Your task to perform on an android device: install app "Speedtest by Ookla" Image 0: 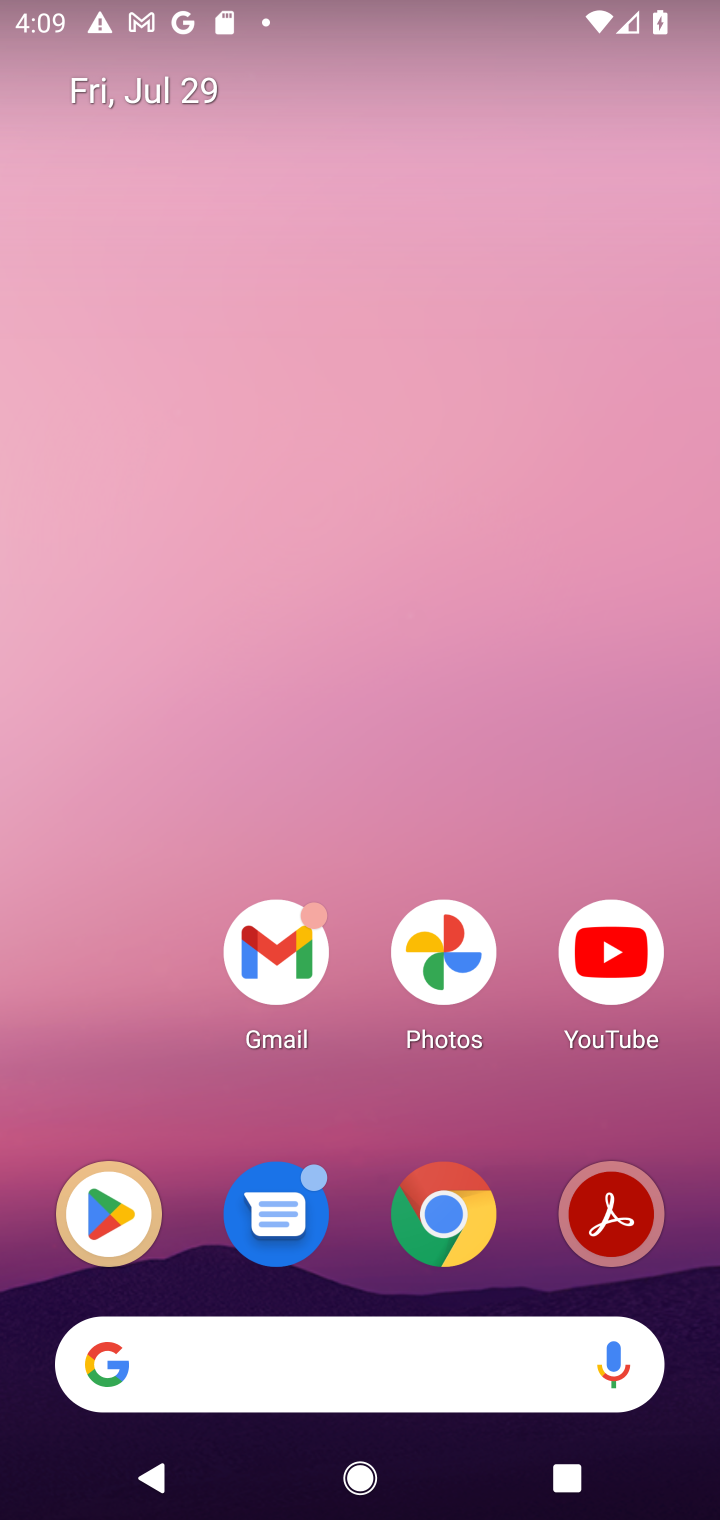
Step 0: click (113, 1254)
Your task to perform on an android device: install app "Speedtest by Ookla" Image 1: 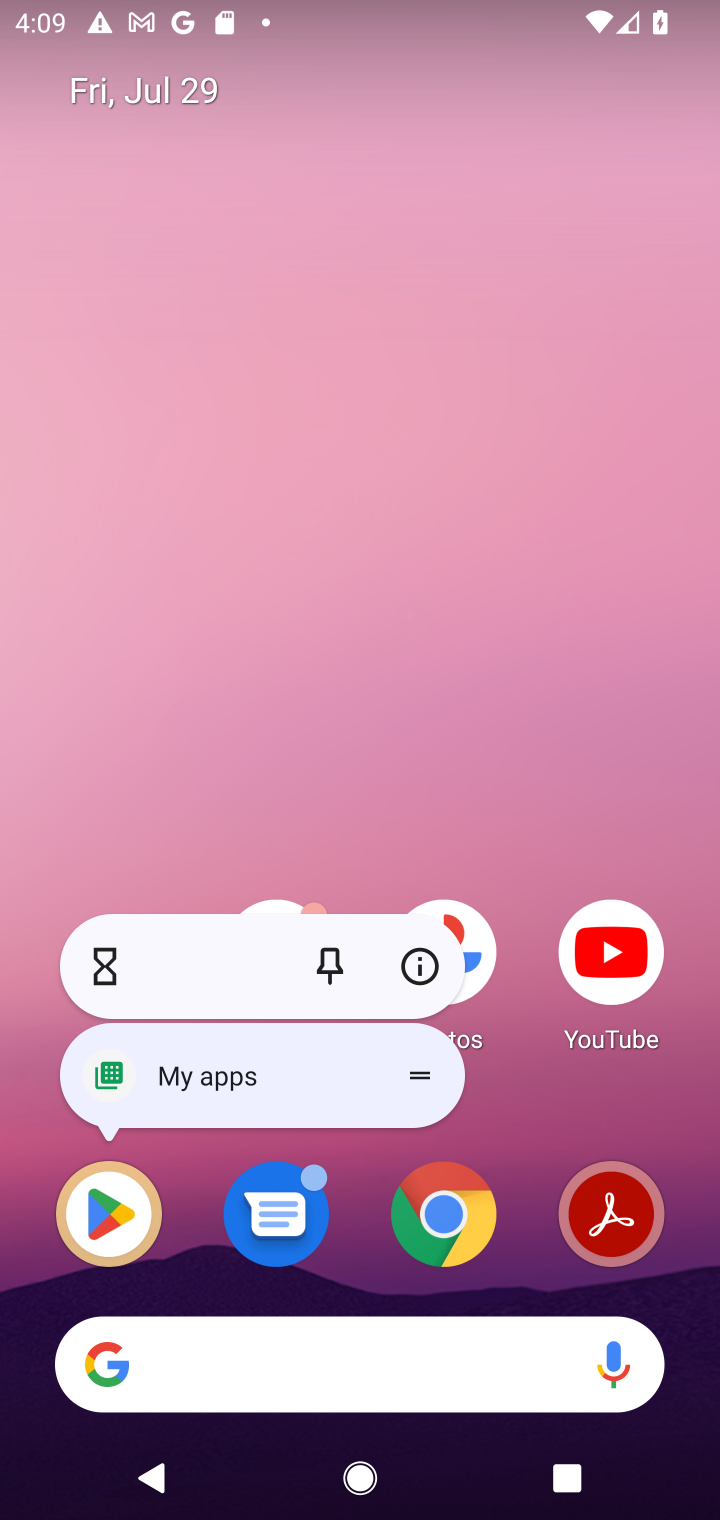
Step 1: click (133, 1202)
Your task to perform on an android device: install app "Speedtest by Ookla" Image 2: 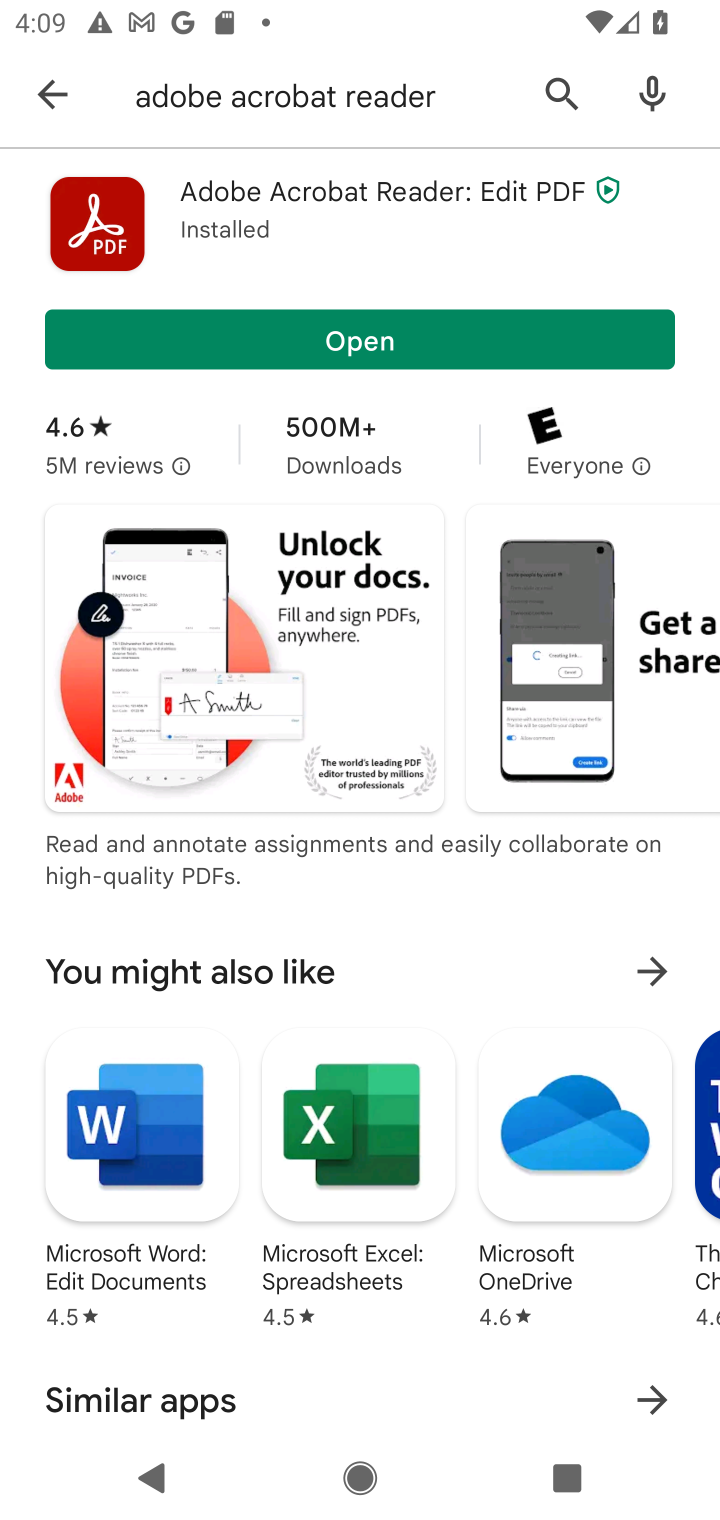
Step 2: click (303, 75)
Your task to perform on an android device: install app "Speedtest by Ookla" Image 3: 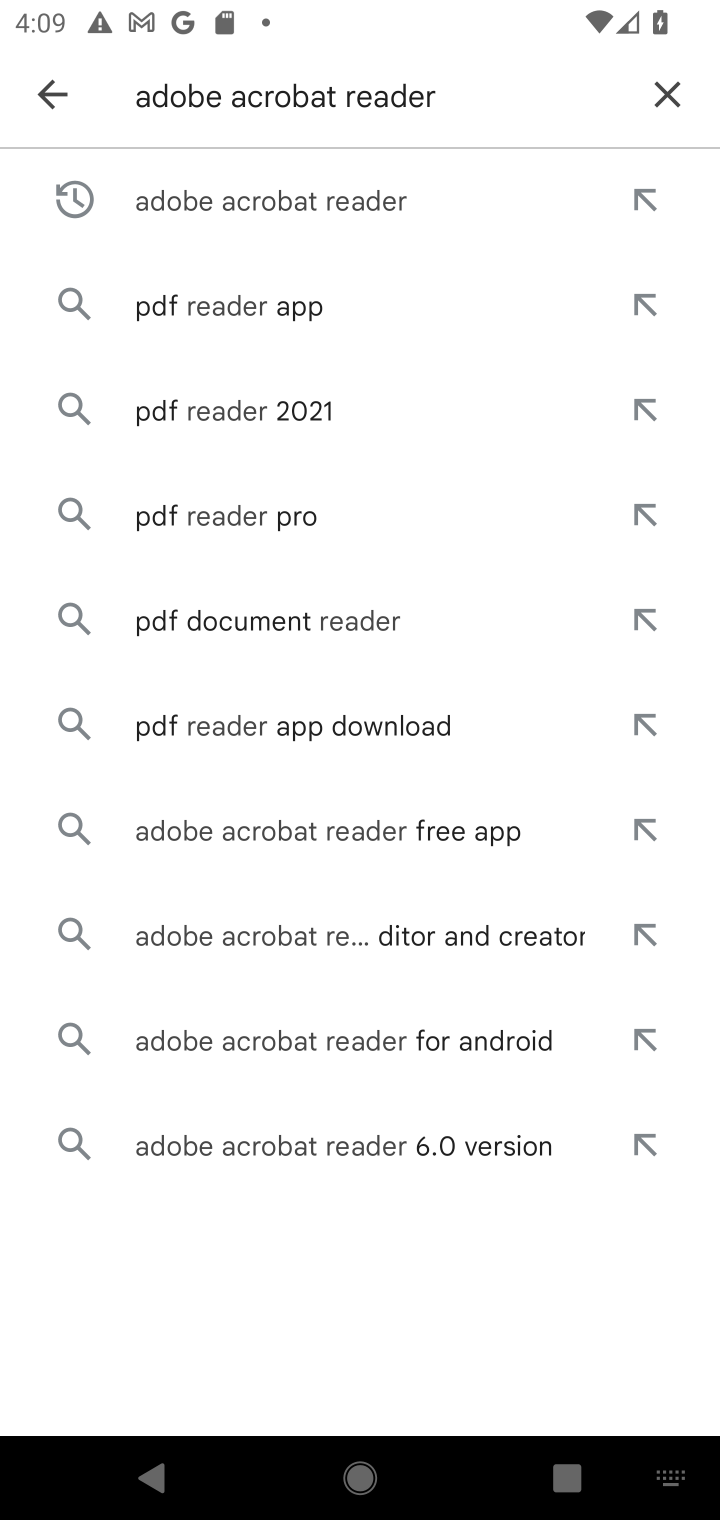
Step 3: click (660, 89)
Your task to perform on an android device: install app "Speedtest by Ookla" Image 4: 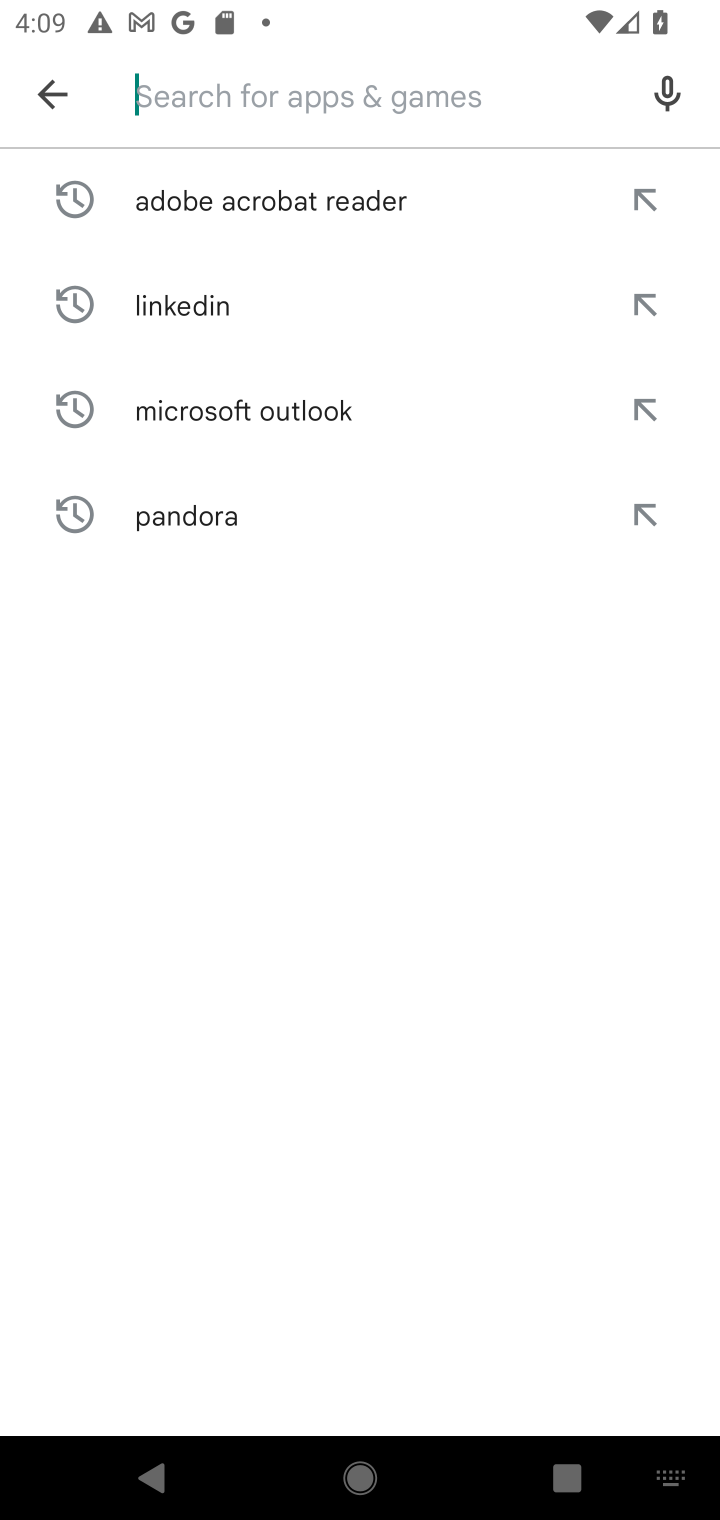
Step 4: type "speedtest by Ookla"
Your task to perform on an android device: install app "Speedtest by Ookla" Image 5: 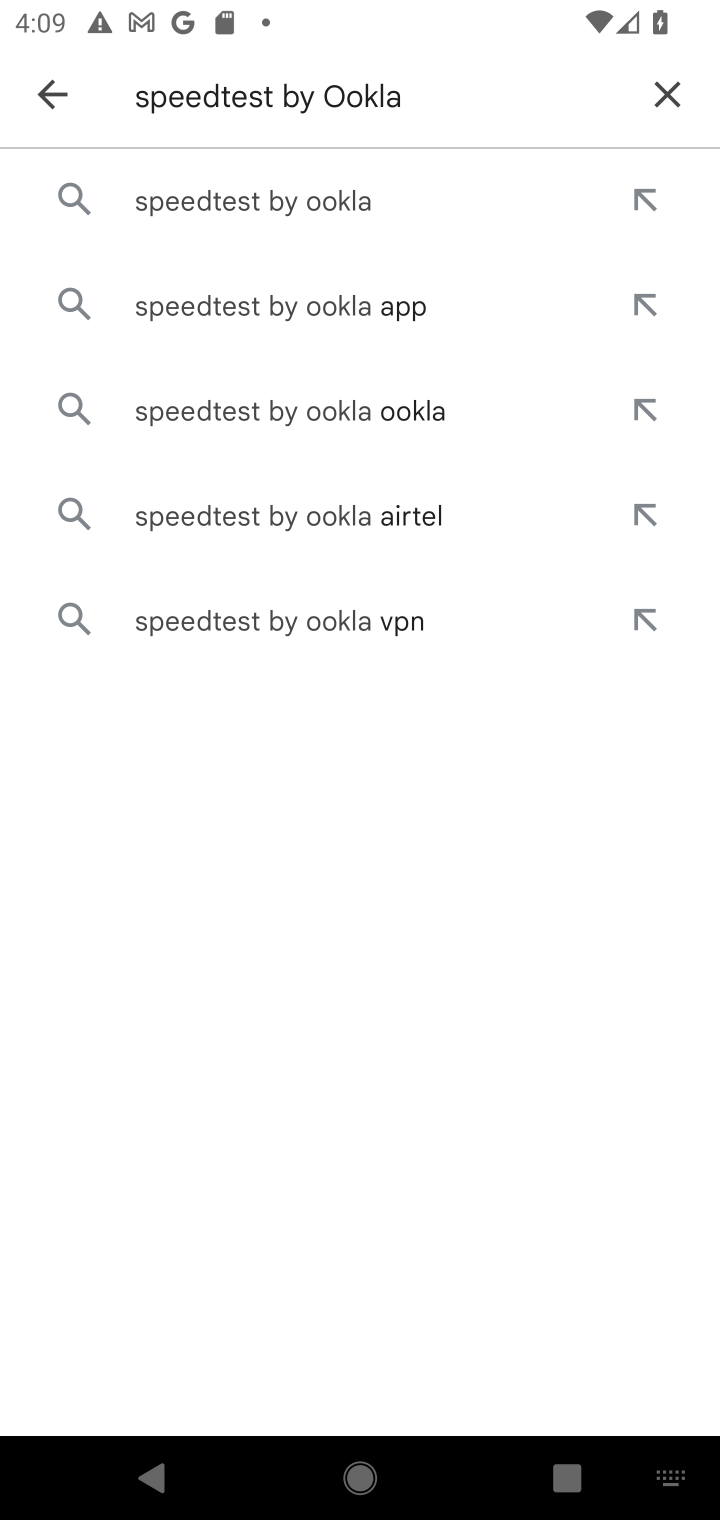
Step 5: click (237, 210)
Your task to perform on an android device: install app "Speedtest by Ookla" Image 6: 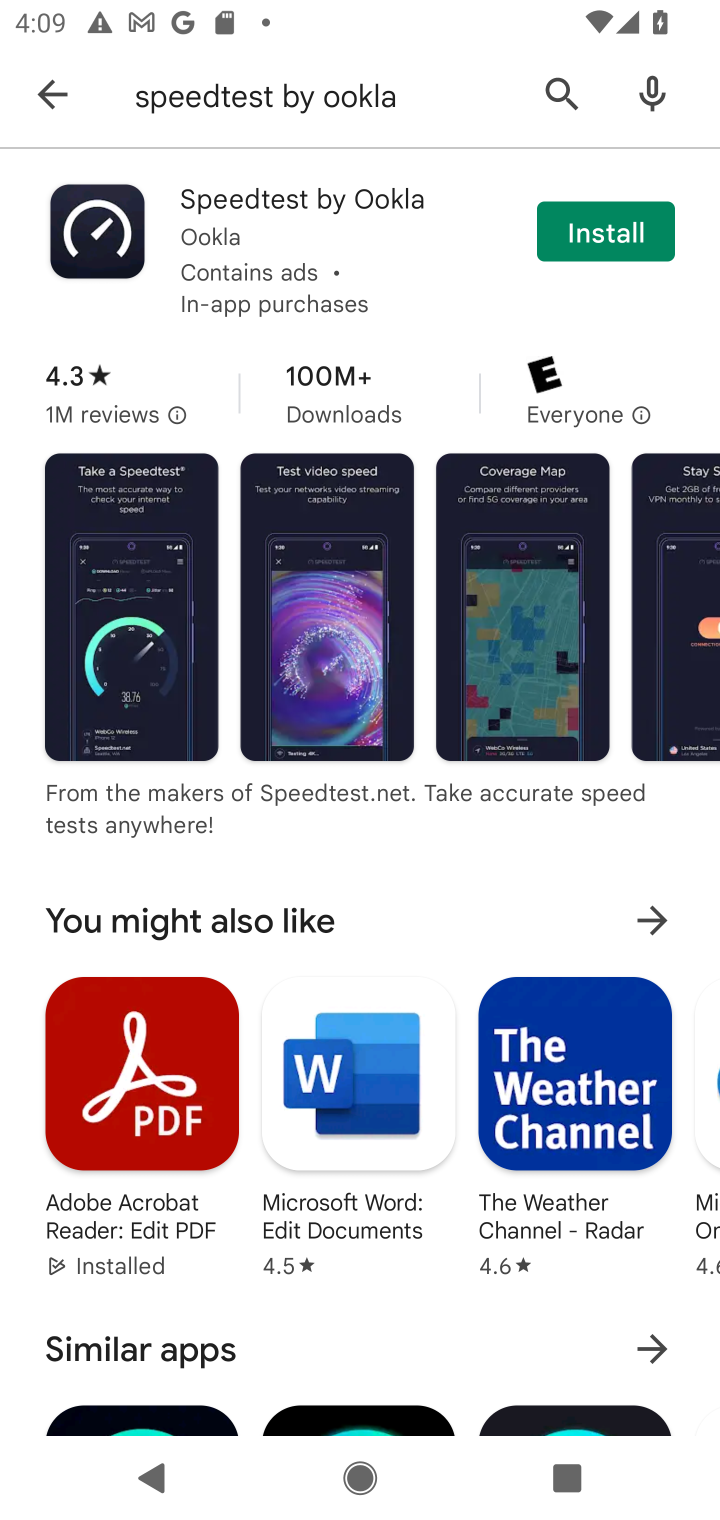
Step 6: click (634, 208)
Your task to perform on an android device: install app "Speedtest by Ookla" Image 7: 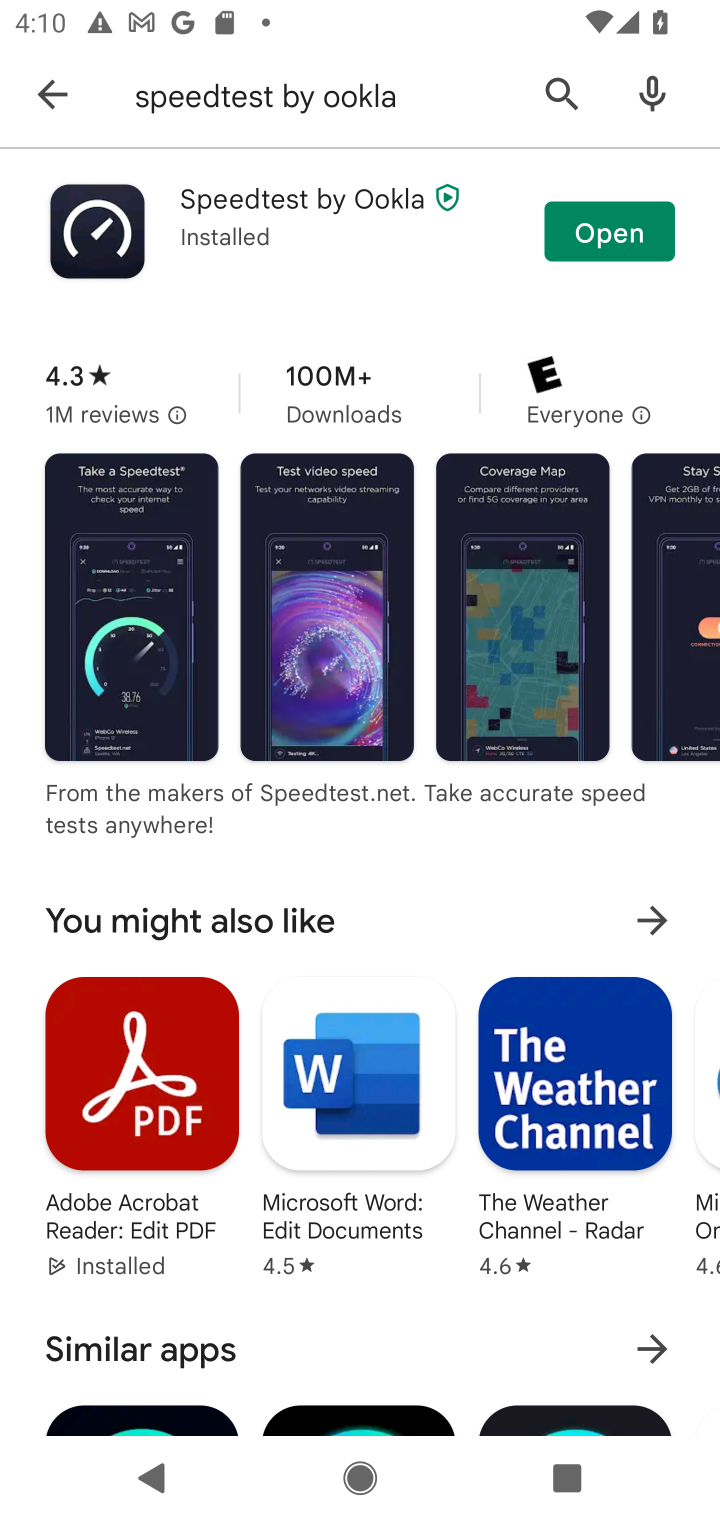
Step 7: click (609, 238)
Your task to perform on an android device: install app "Speedtest by Ookla" Image 8: 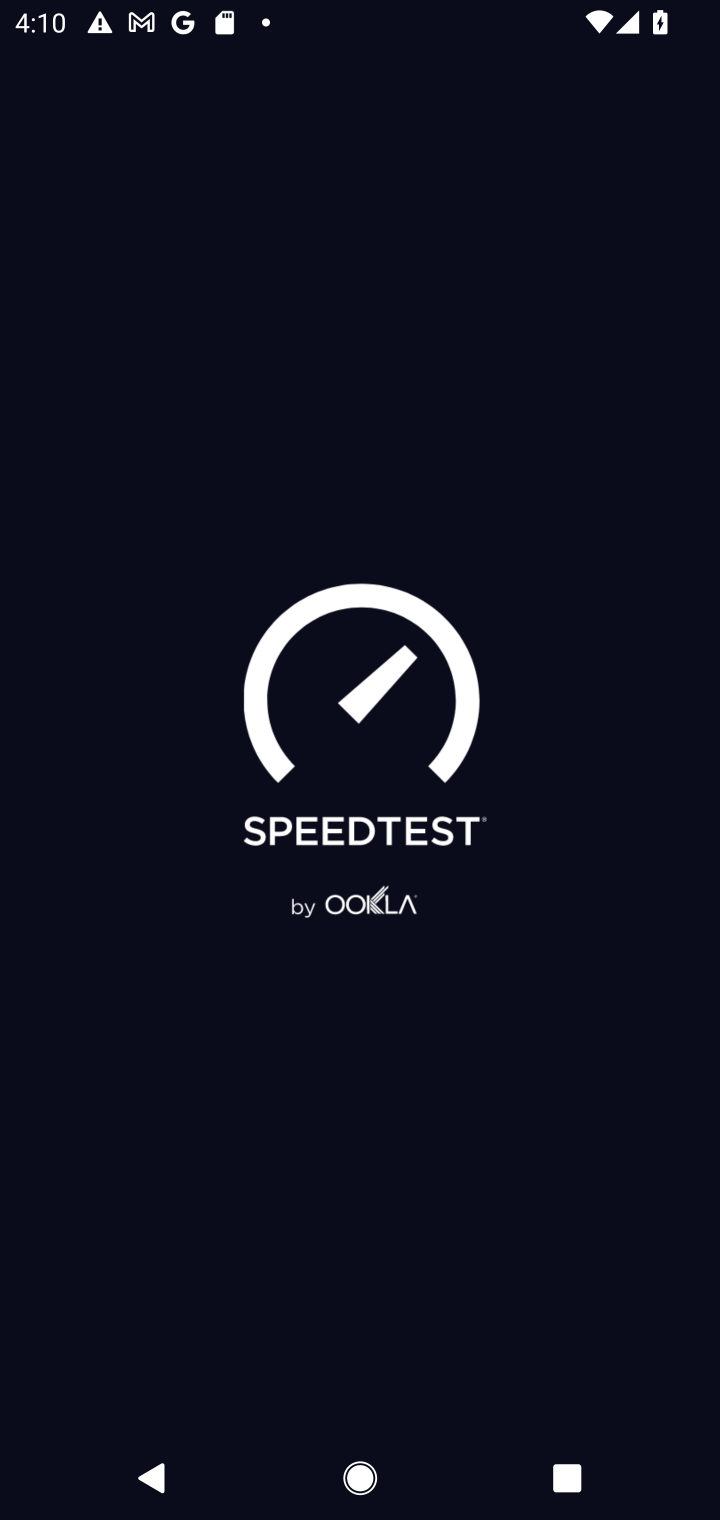
Step 8: task complete